Your task to perform on an android device: Show me recent news Image 0: 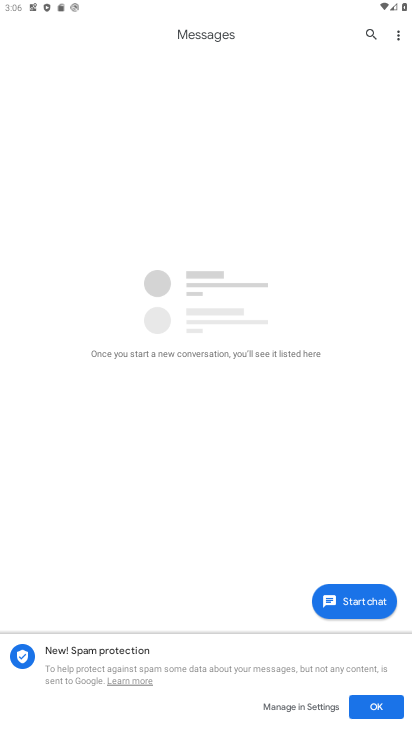
Step 0: press home button
Your task to perform on an android device: Show me recent news Image 1: 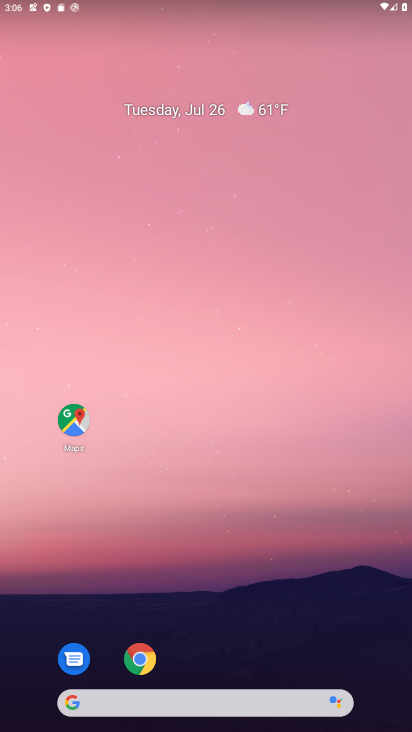
Step 1: click (248, 700)
Your task to perform on an android device: Show me recent news Image 2: 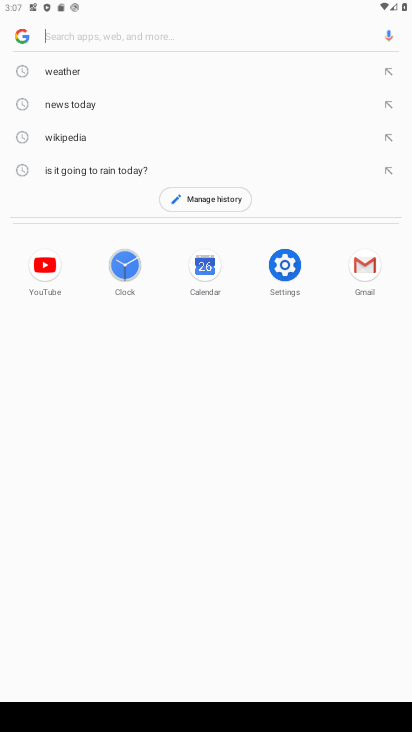
Step 2: type "recent news"
Your task to perform on an android device: Show me recent news Image 3: 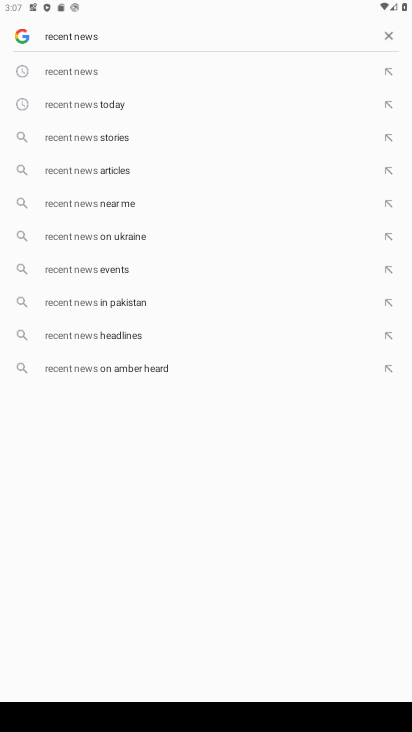
Step 3: click (63, 66)
Your task to perform on an android device: Show me recent news Image 4: 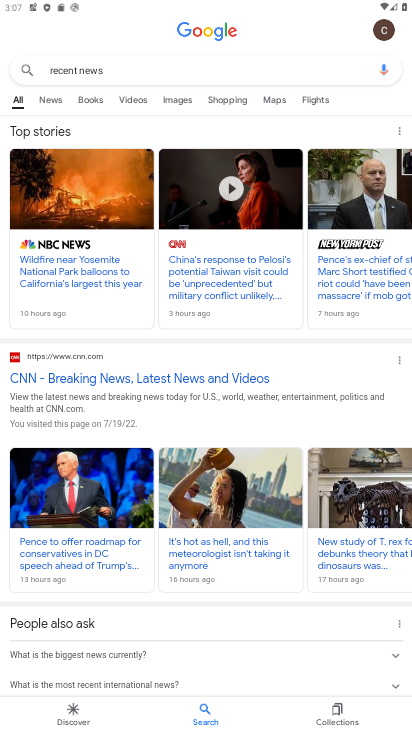
Step 4: task complete